Your task to perform on an android device: Clear the cart on walmart. Image 0: 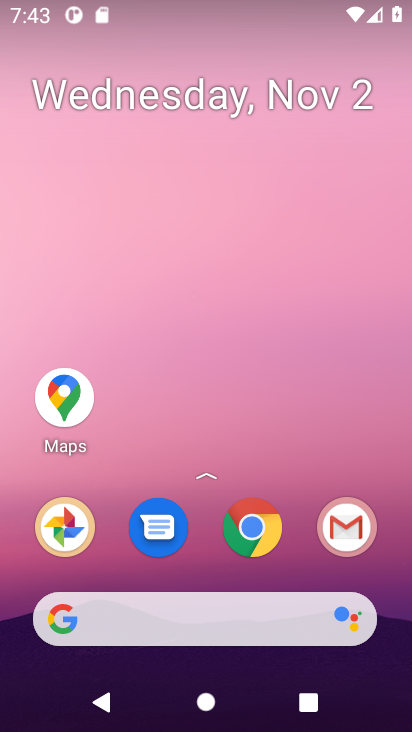
Step 0: click (253, 535)
Your task to perform on an android device: Clear the cart on walmart. Image 1: 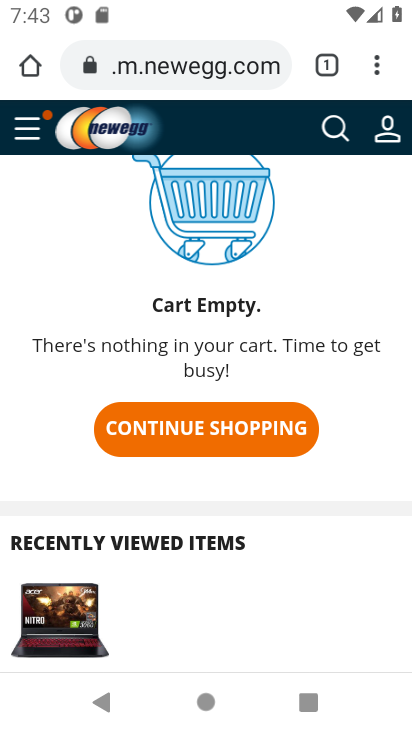
Step 1: click (183, 61)
Your task to perform on an android device: Clear the cart on walmart. Image 2: 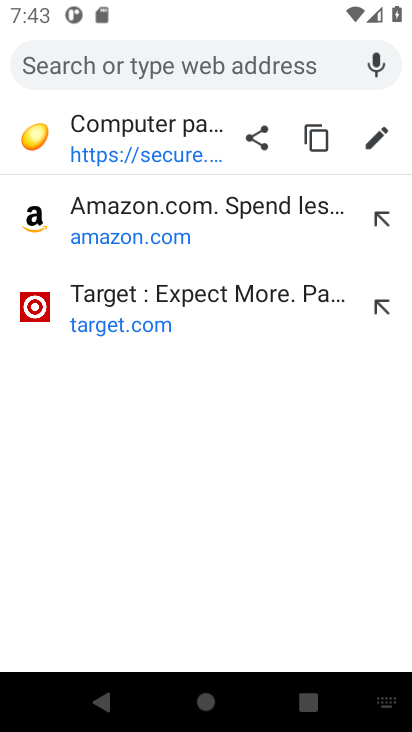
Step 2: type "walmart"
Your task to perform on an android device: Clear the cart on walmart. Image 3: 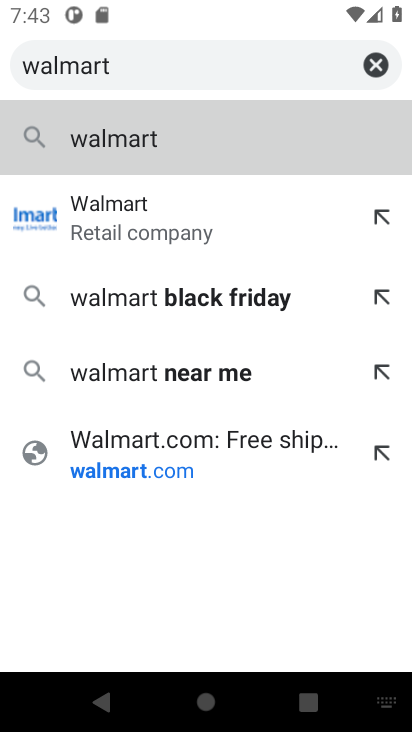
Step 3: click (127, 151)
Your task to perform on an android device: Clear the cart on walmart. Image 4: 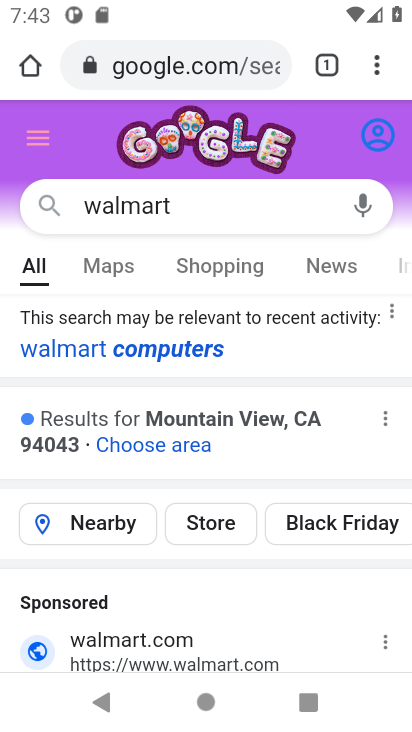
Step 4: drag from (232, 478) to (148, 10)
Your task to perform on an android device: Clear the cart on walmart. Image 5: 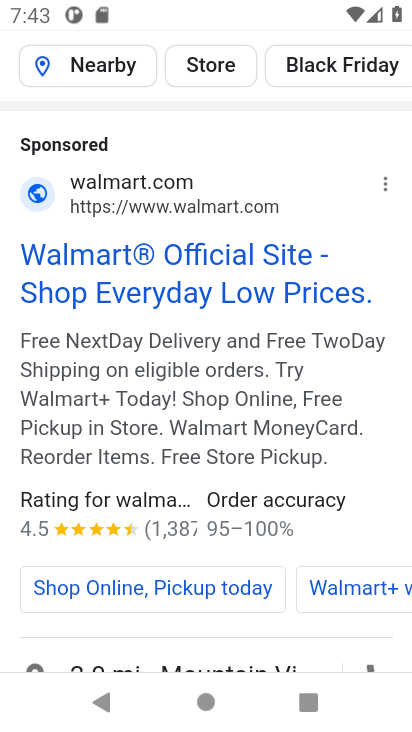
Step 5: drag from (300, 544) to (160, 207)
Your task to perform on an android device: Clear the cart on walmart. Image 6: 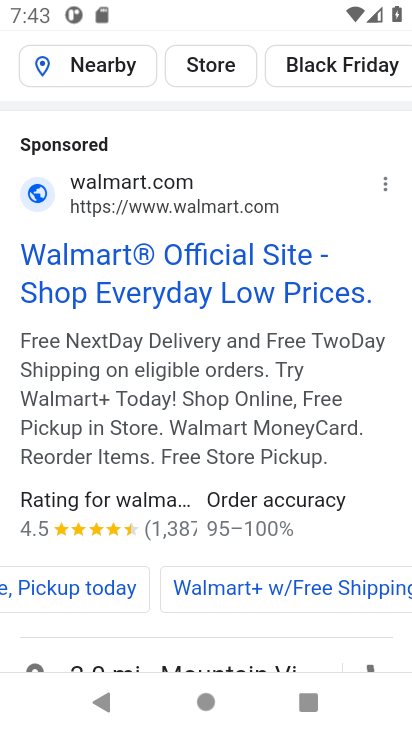
Step 6: drag from (345, 460) to (217, 78)
Your task to perform on an android device: Clear the cart on walmart. Image 7: 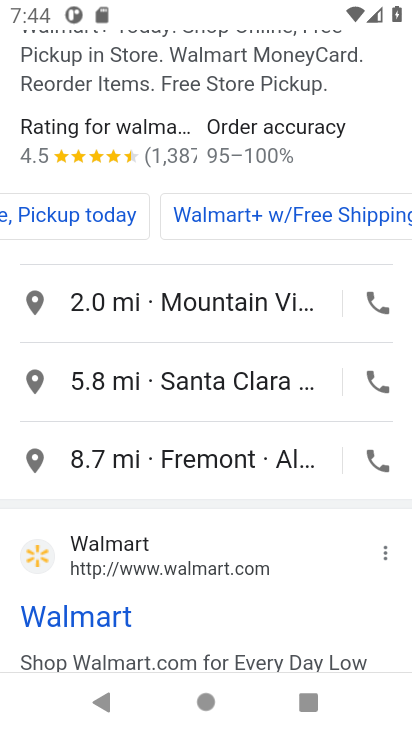
Step 7: click (47, 618)
Your task to perform on an android device: Clear the cart on walmart. Image 8: 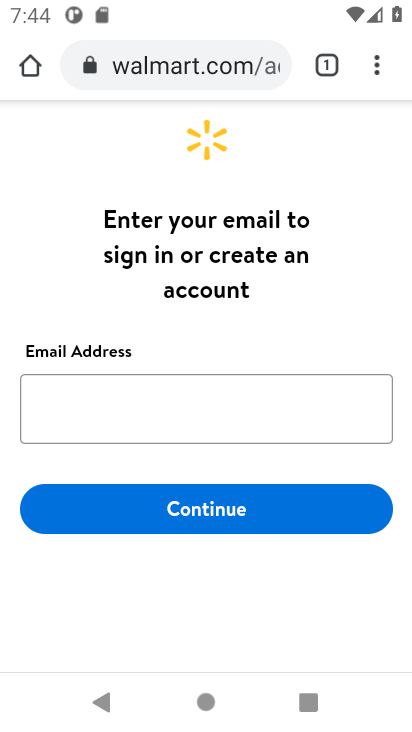
Step 8: press back button
Your task to perform on an android device: Clear the cart on walmart. Image 9: 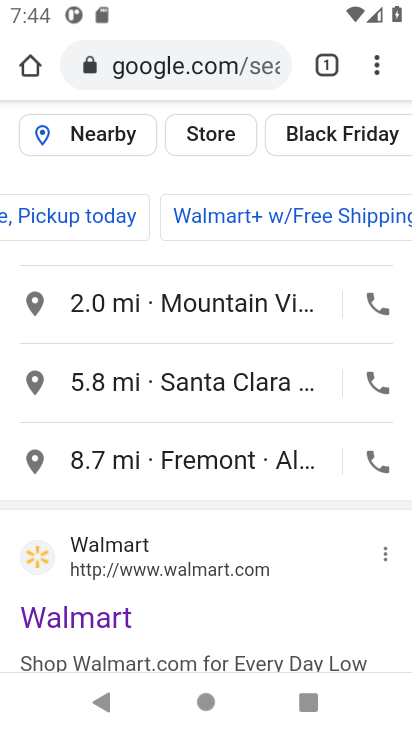
Step 9: click (103, 620)
Your task to perform on an android device: Clear the cart on walmart. Image 10: 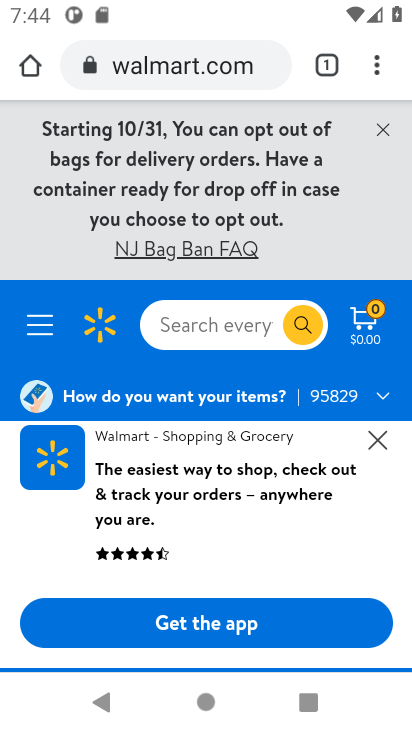
Step 10: click (362, 326)
Your task to perform on an android device: Clear the cart on walmart. Image 11: 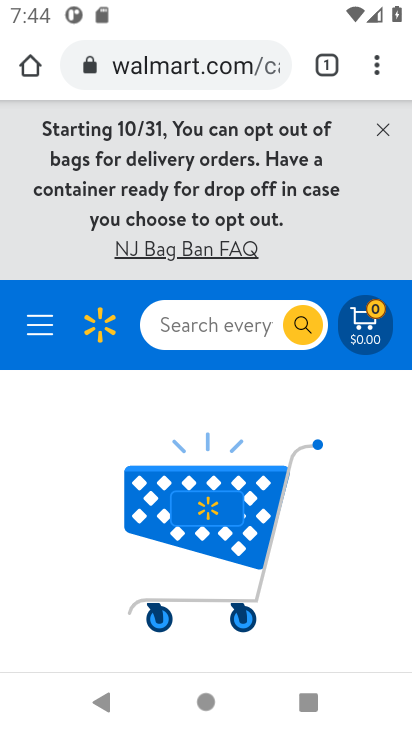
Step 11: task complete